Your task to perform on an android device: Clear the shopping cart on amazon.com. Search for "rayovac triple a" on amazon.com, select the first entry, add it to the cart, then select checkout. Image 0: 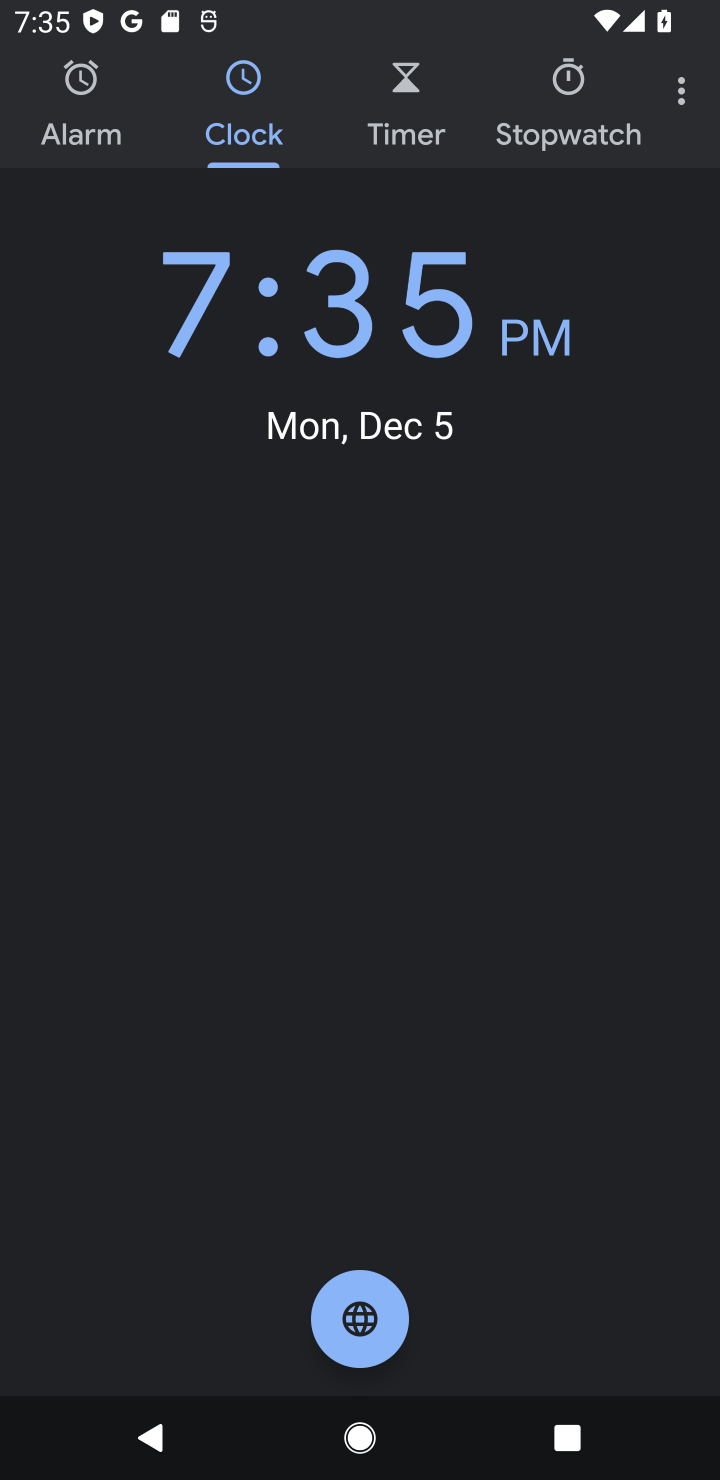
Step 0: press home button
Your task to perform on an android device: Clear the shopping cart on amazon.com. Search for "rayovac triple a" on amazon.com, select the first entry, add it to the cart, then select checkout. Image 1: 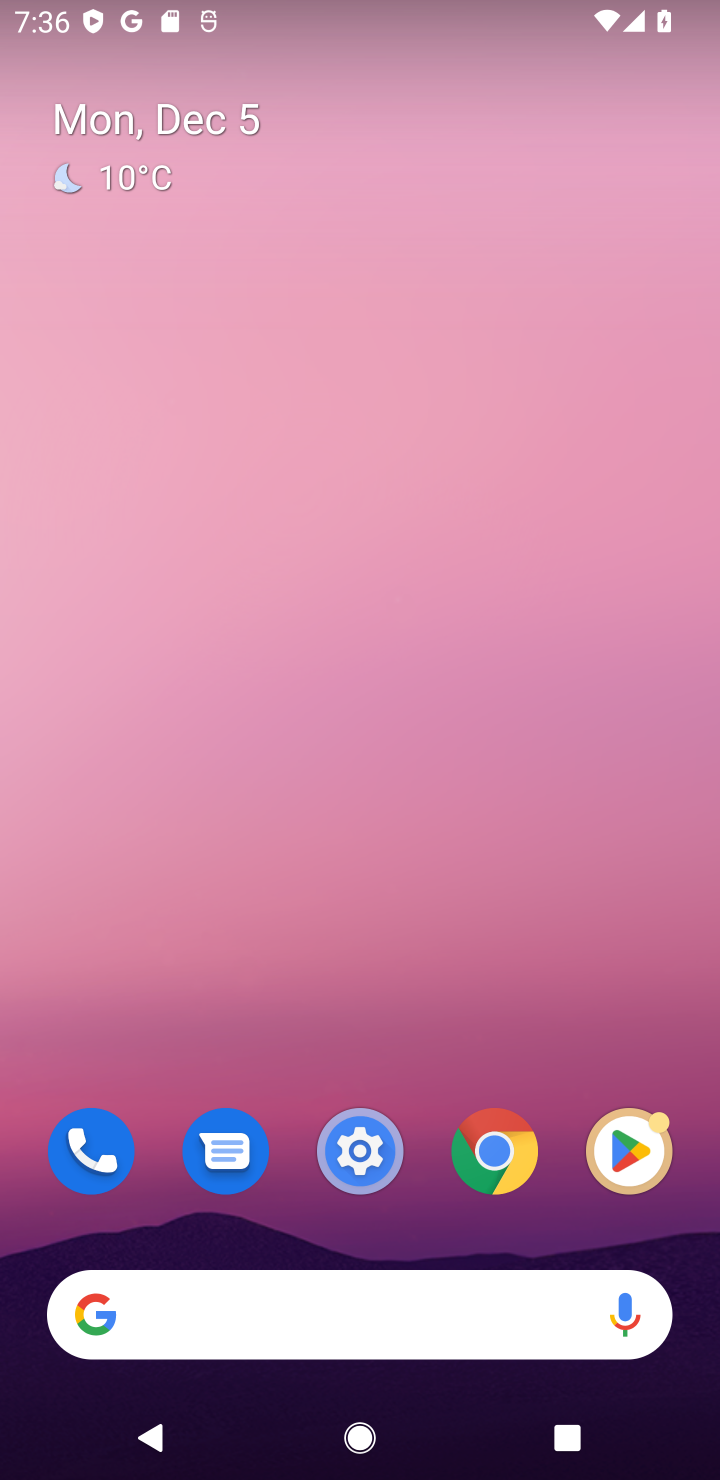
Step 1: click (326, 1345)
Your task to perform on an android device: Clear the shopping cart on amazon.com. Search for "rayovac triple a" on amazon.com, select the first entry, add it to the cart, then select checkout. Image 2: 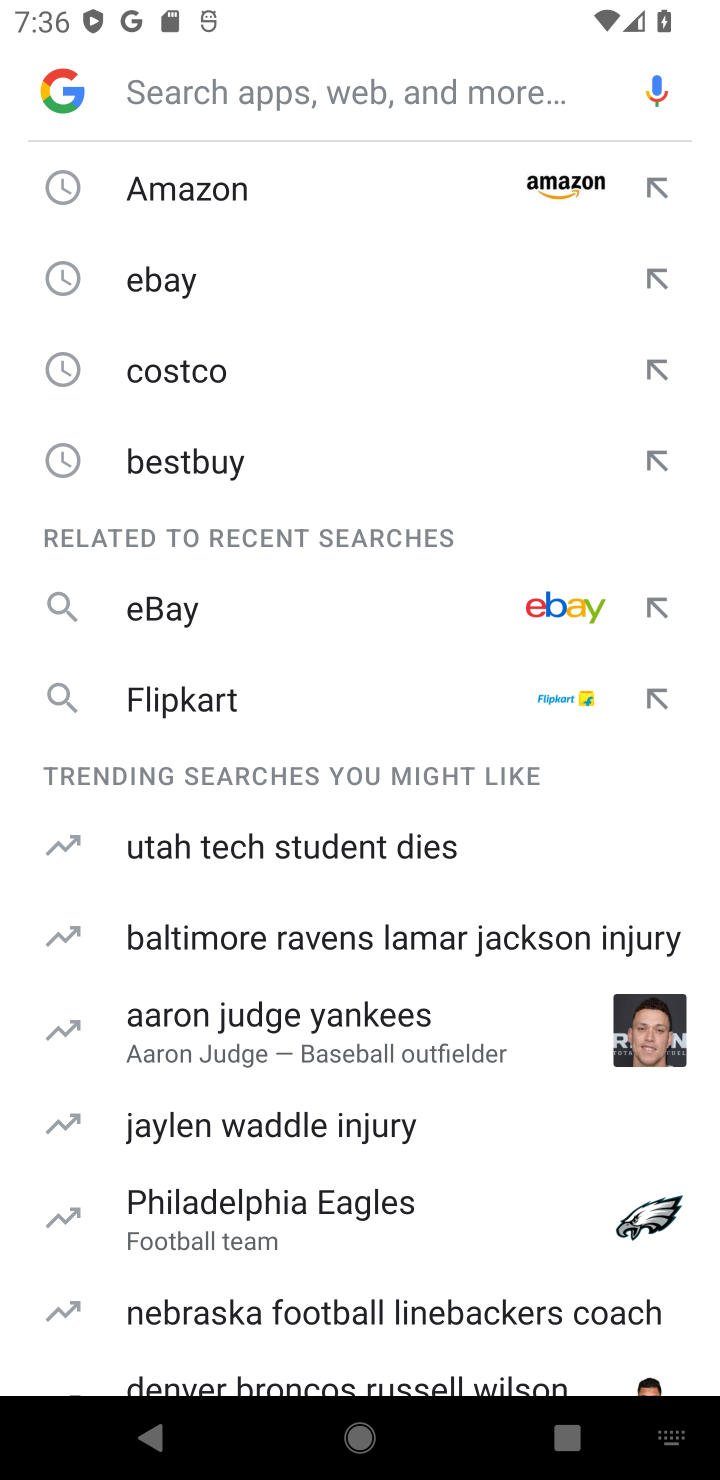
Step 2: type "amazon"
Your task to perform on an android device: Clear the shopping cart on amazon.com. Search for "rayovac triple a" on amazon.com, select the first entry, add it to the cart, then select checkout. Image 3: 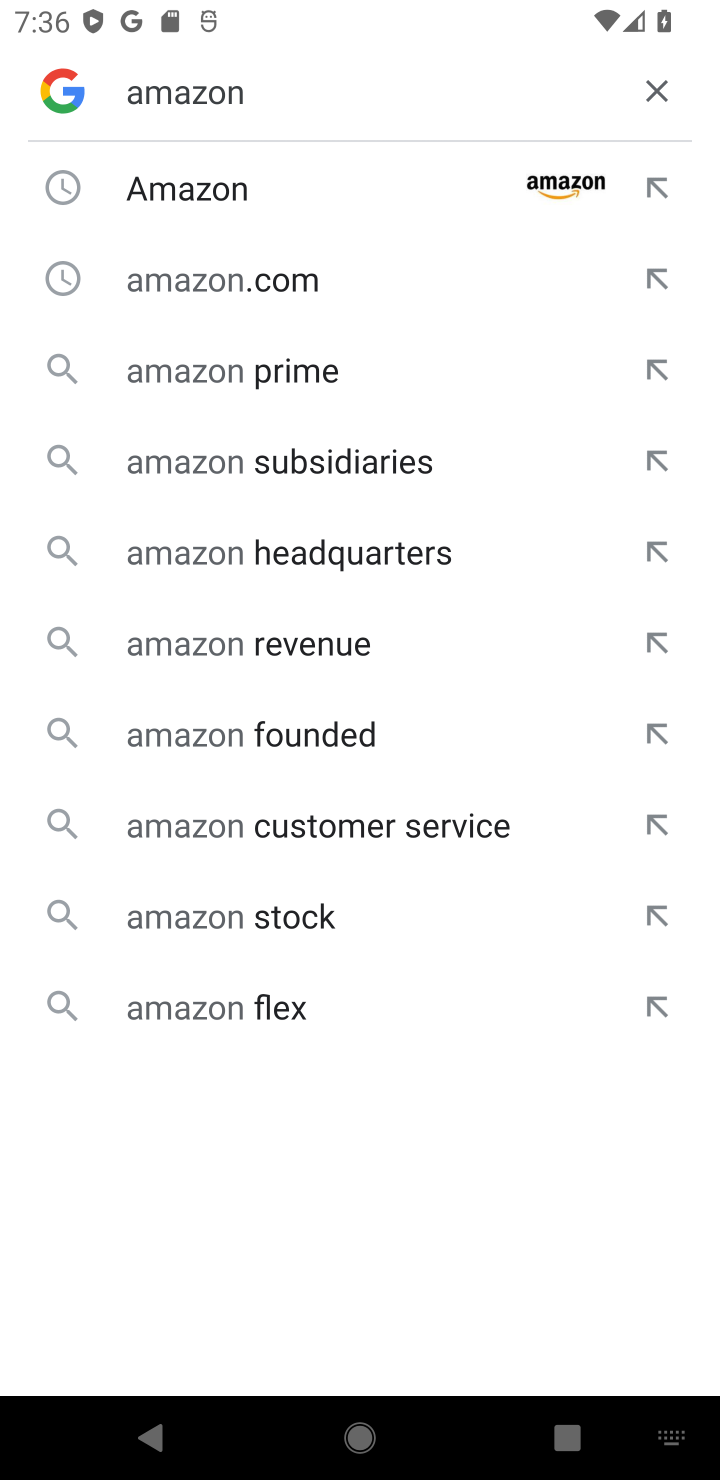
Step 3: click (305, 186)
Your task to perform on an android device: Clear the shopping cart on amazon.com. Search for "rayovac triple a" on amazon.com, select the first entry, add it to the cart, then select checkout. Image 4: 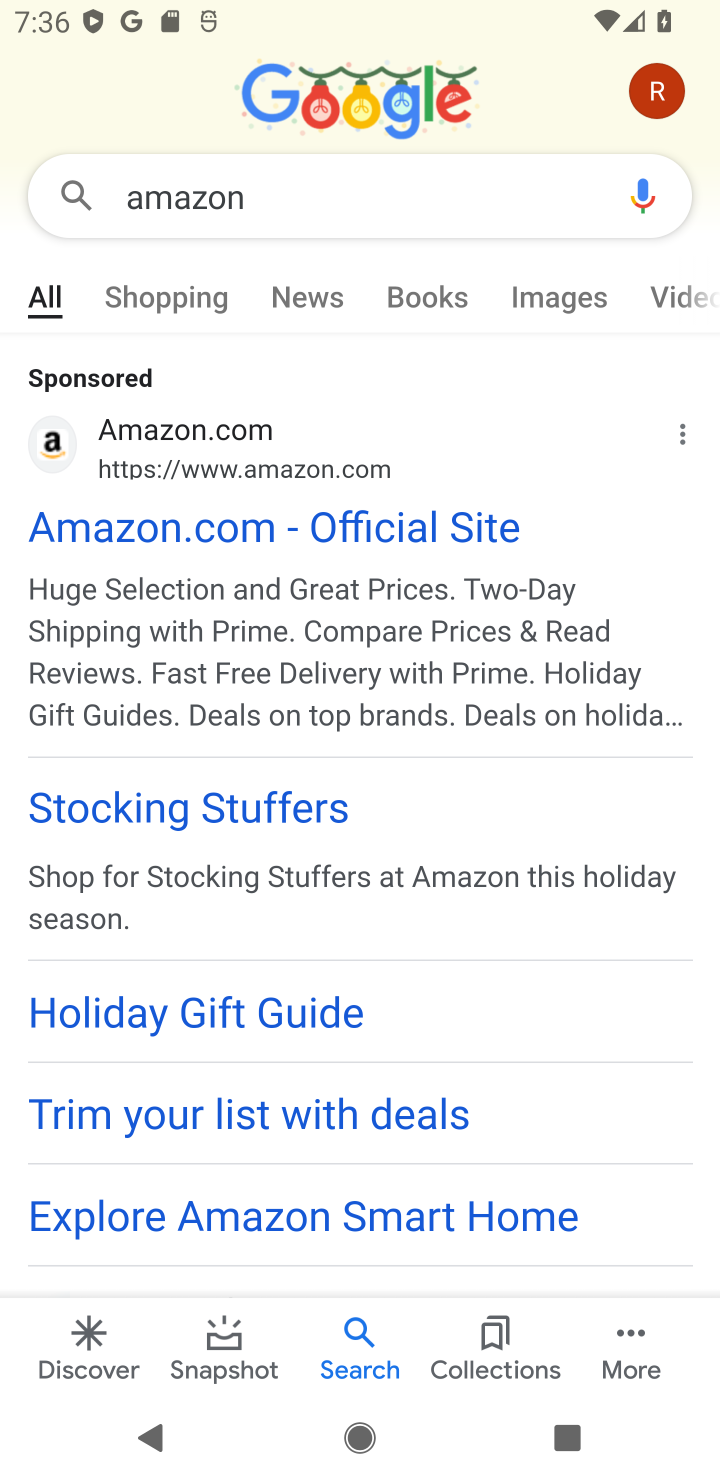
Step 4: click (150, 538)
Your task to perform on an android device: Clear the shopping cart on amazon.com. Search for "rayovac triple a" on amazon.com, select the first entry, add it to the cart, then select checkout. Image 5: 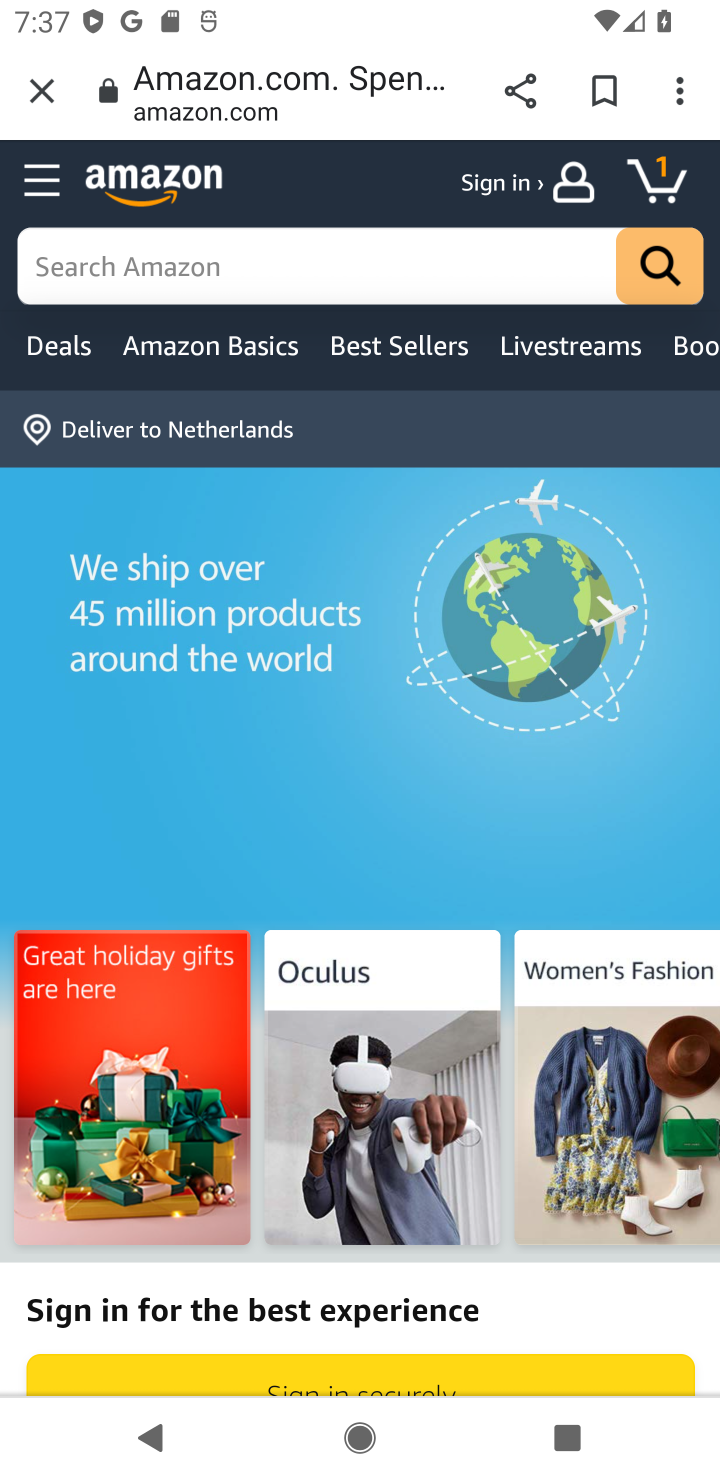
Step 5: click (370, 262)
Your task to perform on an android device: Clear the shopping cart on amazon.com. Search for "rayovac triple a" on amazon.com, select the first entry, add it to the cart, then select checkout. Image 6: 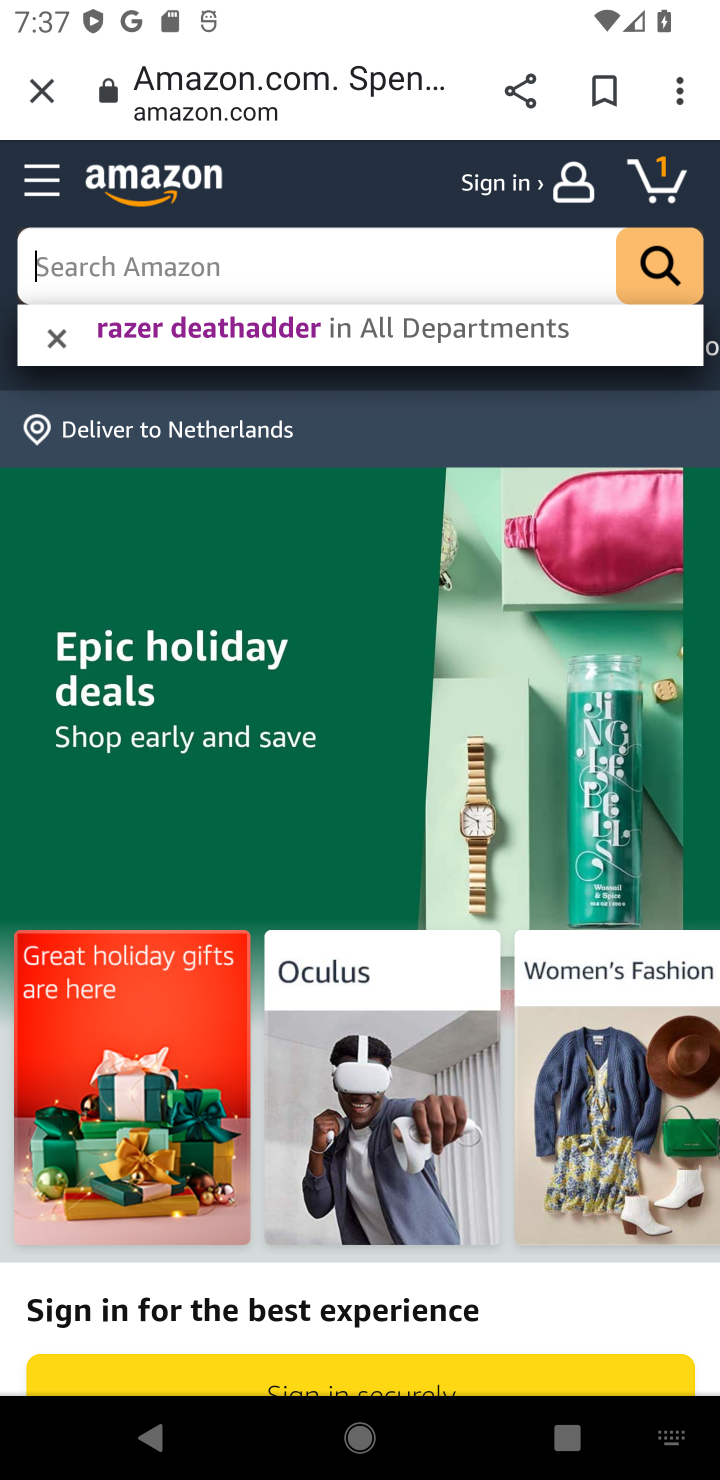
Step 6: type "rayovac triple a"
Your task to perform on an android device: Clear the shopping cart on amazon.com. Search for "rayovac triple a" on amazon.com, select the first entry, add it to the cart, then select checkout. Image 7: 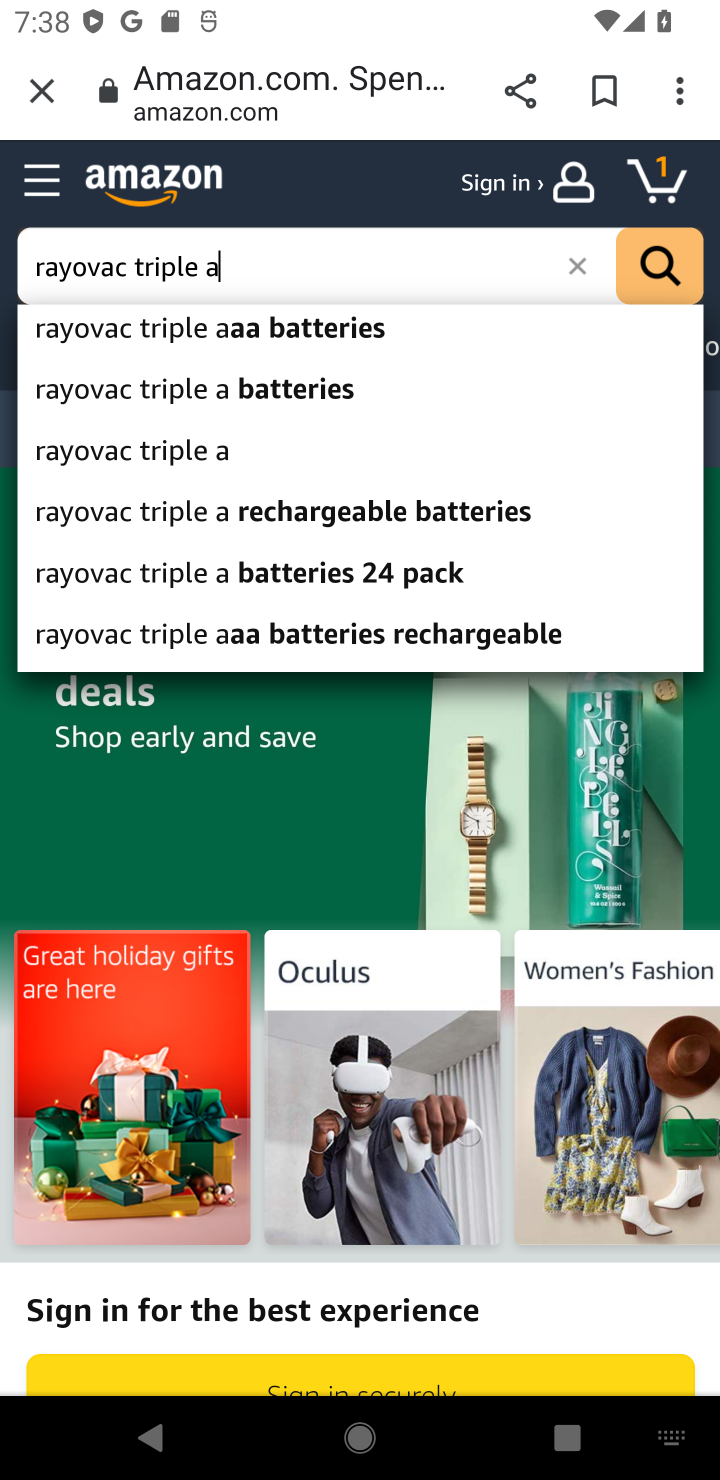
Step 7: click (305, 324)
Your task to perform on an android device: Clear the shopping cart on amazon.com. Search for "rayovac triple a" on amazon.com, select the first entry, add it to the cart, then select checkout. Image 8: 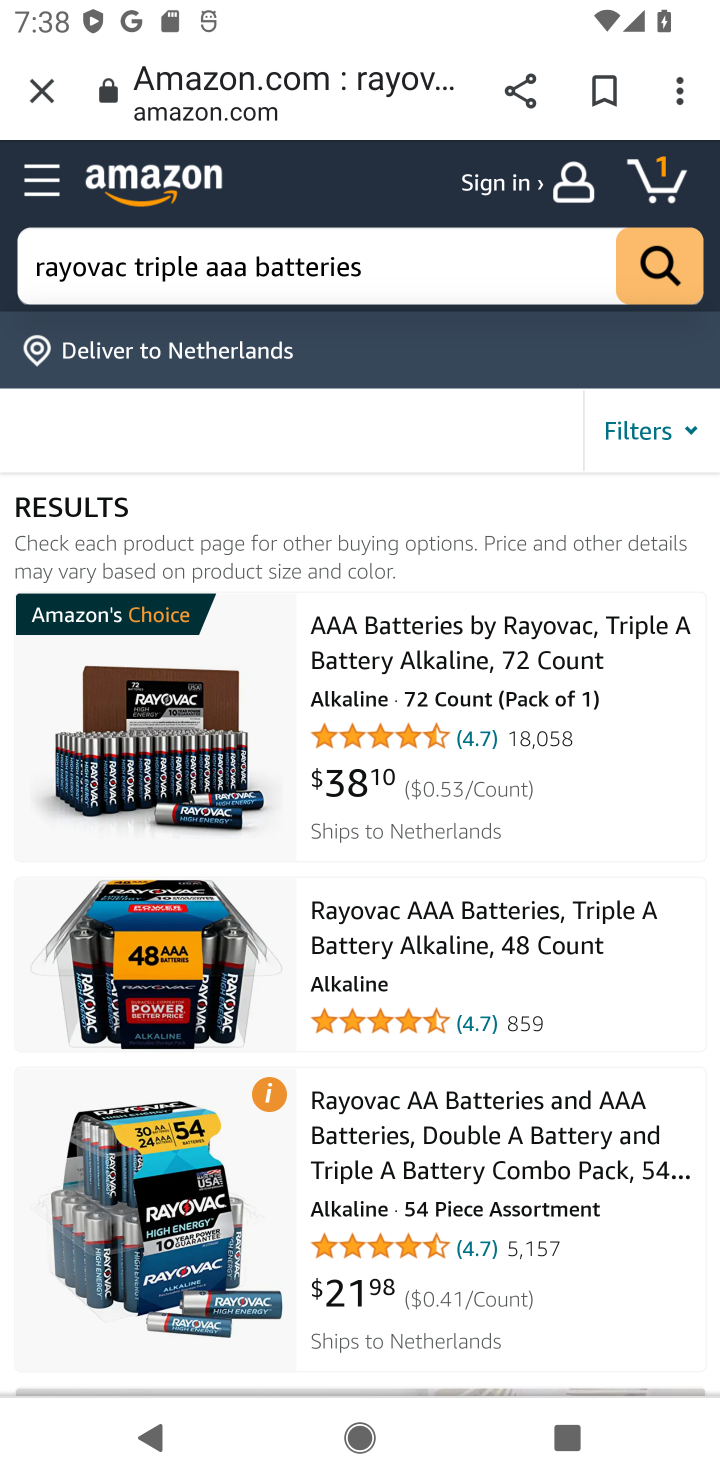
Step 8: click (457, 629)
Your task to perform on an android device: Clear the shopping cart on amazon.com. Search for "rayovac triple a" on amazon.com, select the first entry, add it to the cart, then select checkout. Image 9: 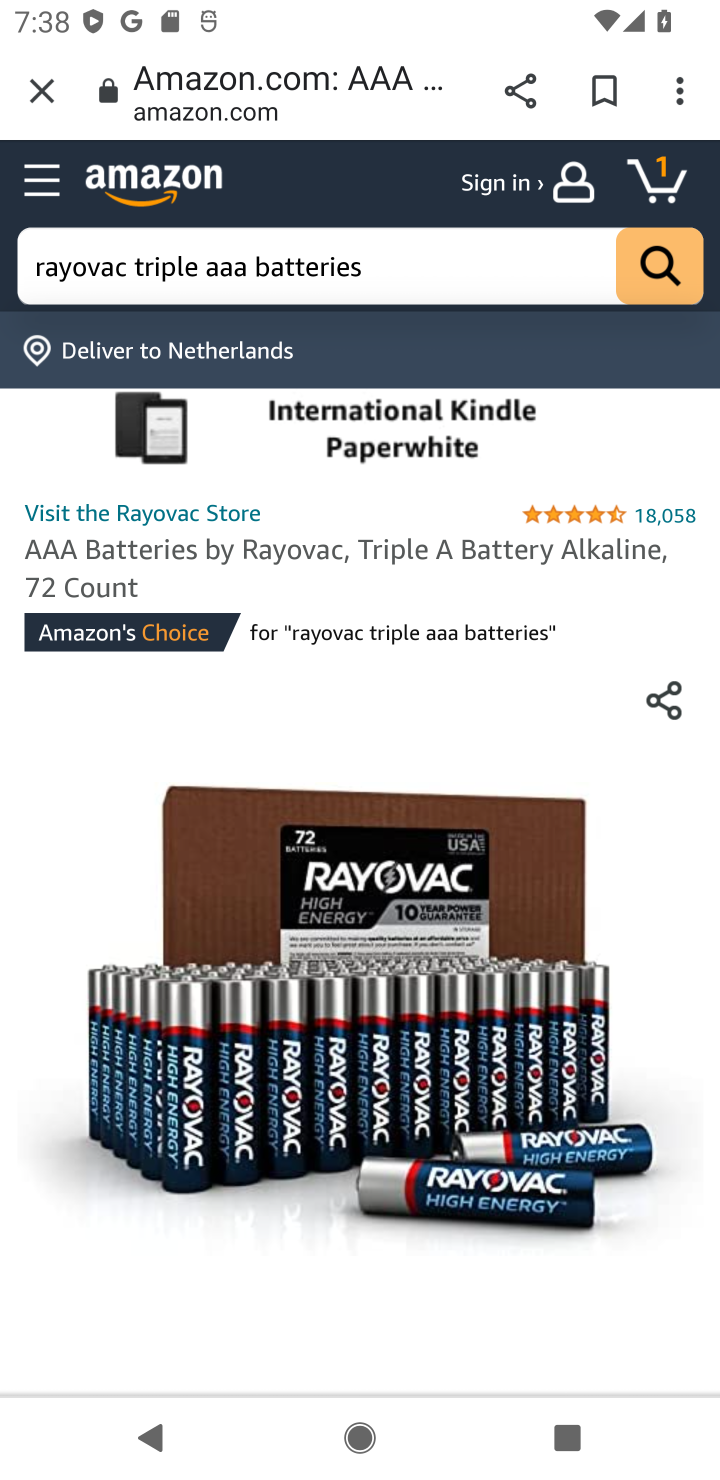
Step 9: click (501, 1187)
Your task to perform on an android device: Clear the shopping cart on amazon.com. Search for "rayovac triple a" on amazon.com, select the first entry, add it to the cart, then select checkout. Image 10: 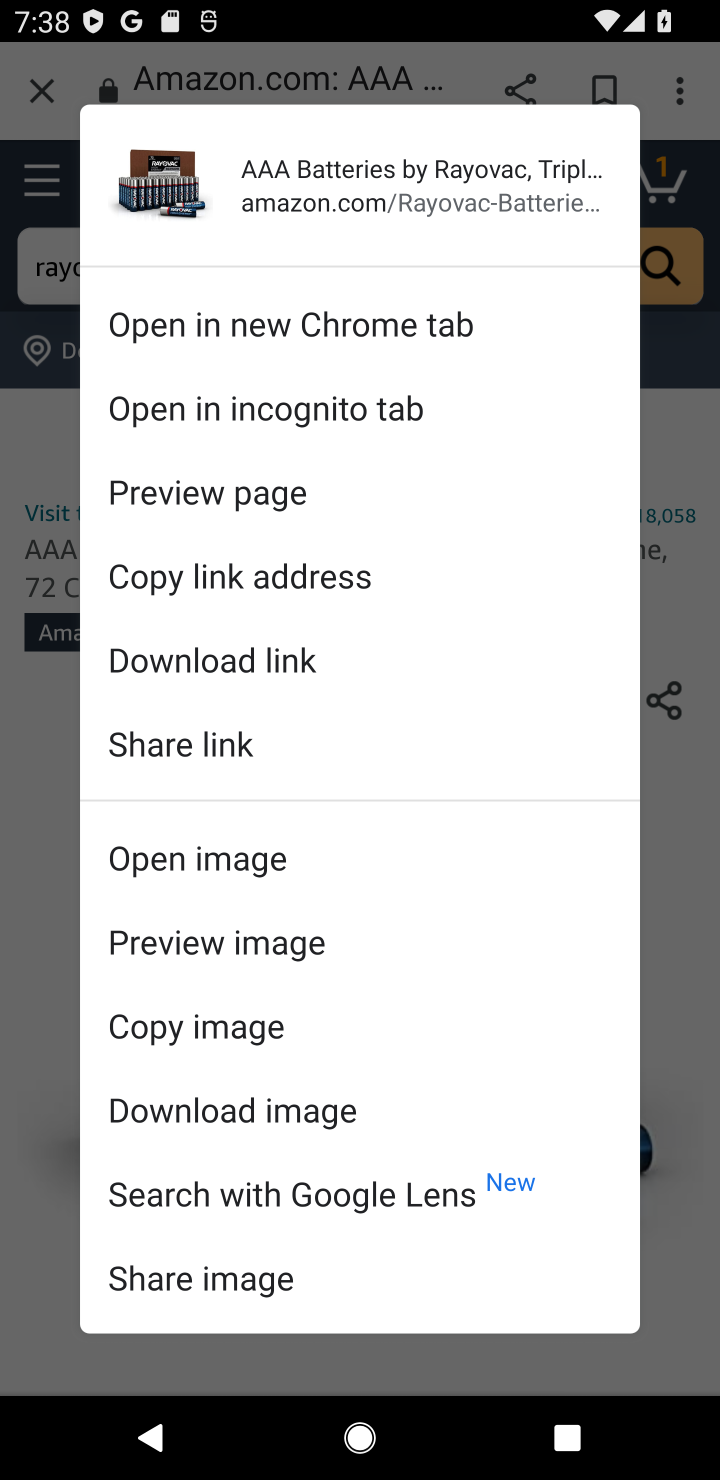
Step 10: click (687, 1355)
Your task to perform on an android device: Clear the shopping cart on amazon.com. Search for "rayovac triple a" on amazon.com, select the first entry, add it to the cart, then select checkout. Image 11: 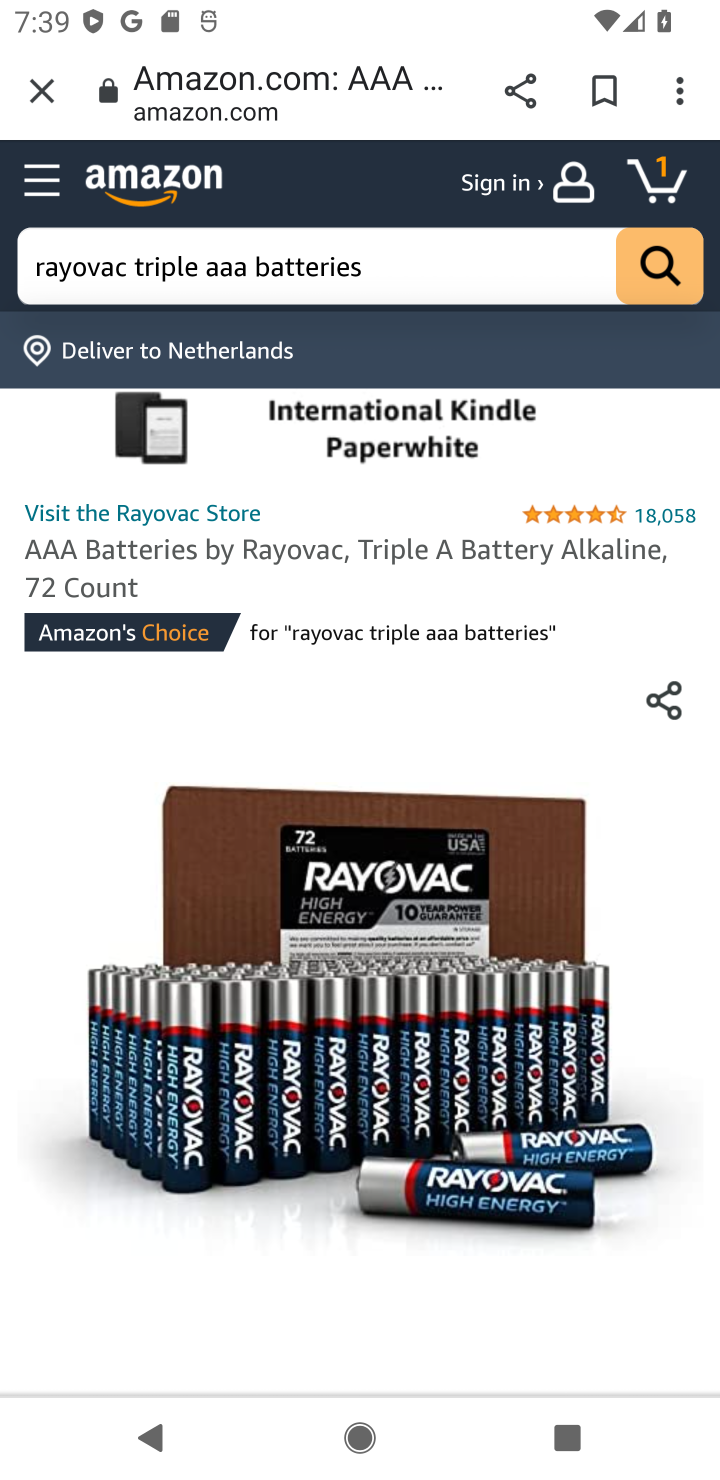
Step 11: task complete